Your task to perform on an android device: Go to calendar. Show me events next week Image 0: 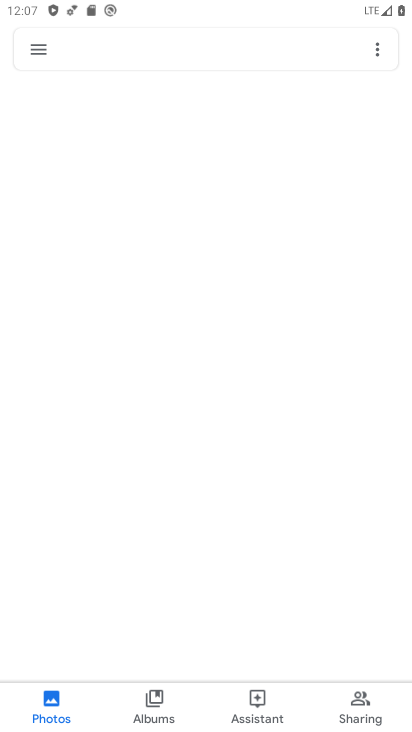
Step 0: click (411, 263)
Your task to perform on an android device: Go to calendar. Show me events next week Image 1: 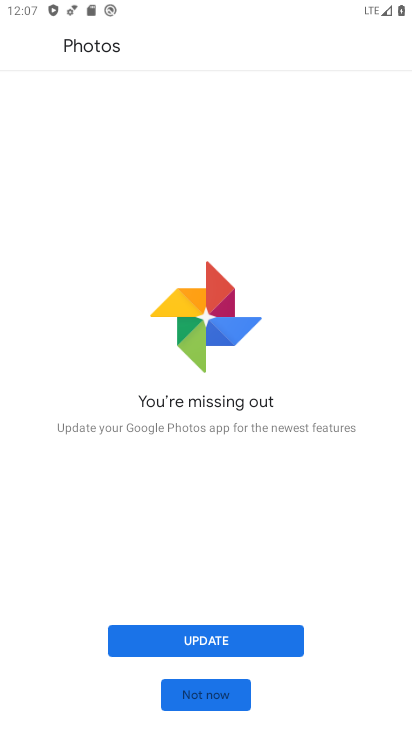
Step 1: press home button
Your task to perform on an android device: Go to calendar. Show me events next week Image 2: 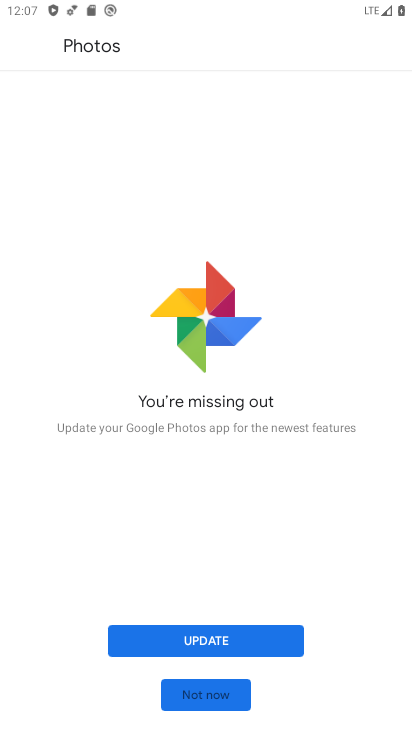
Step 2: drag from (411, 263) to (411, 602)
Your task to perform on an android device: Go to calendar. Show me events next week Image 3: 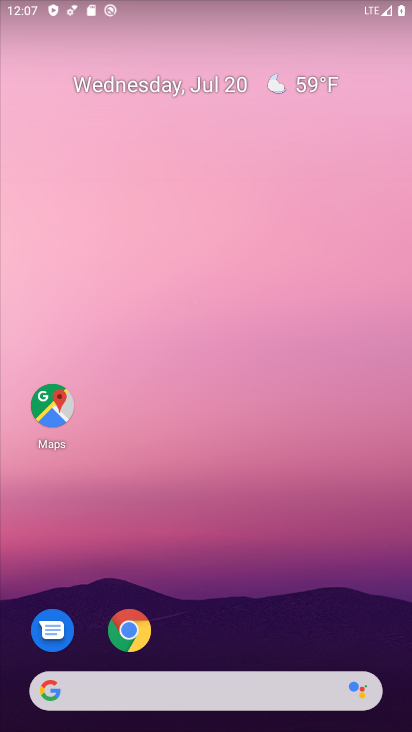
Step 3: drag from (299, 659) to (269, 161)
Your task to perform on an android device: Go to calendar. Show me events next week Image 4: 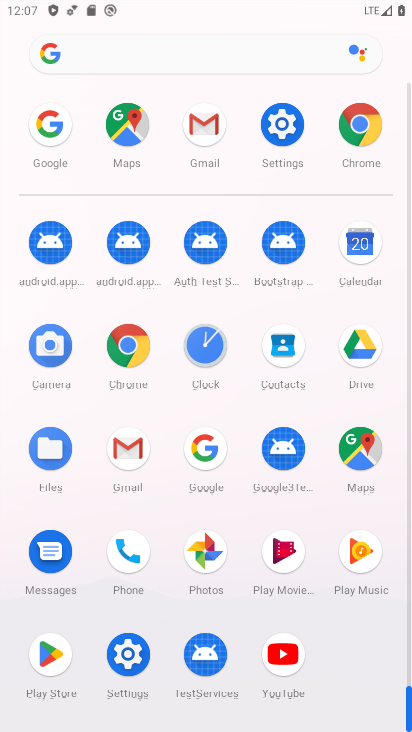
Step 4: click (364, 255)
Your task to perform on an android device: Go to calendar. Show me events next week Image 5: 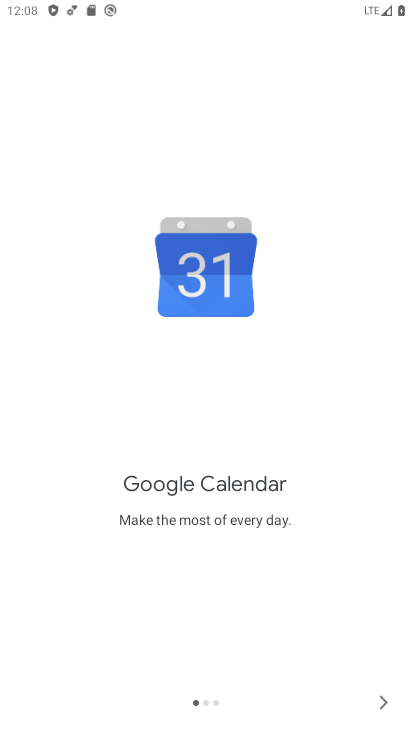
Step 5: click (388, 698)
Your task to perform on an android device: Go to calendar. Show me events next week Image 6: 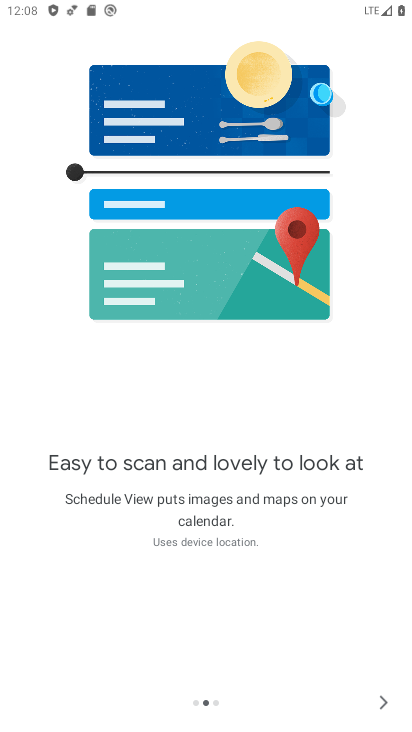
Step 6: click (383, 703)
Your task to perform on an android device: Go to calendar. Show me events next week Image 7: 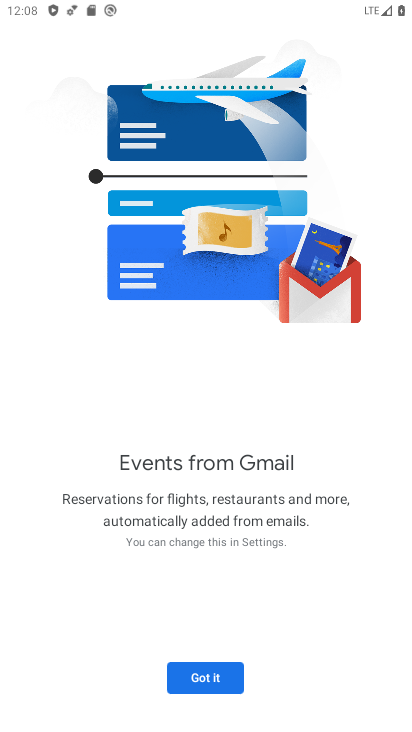
Step 7: click (209, 682)
Your task to perform on an android device: Go to calendar. Show me events next week Image 8: 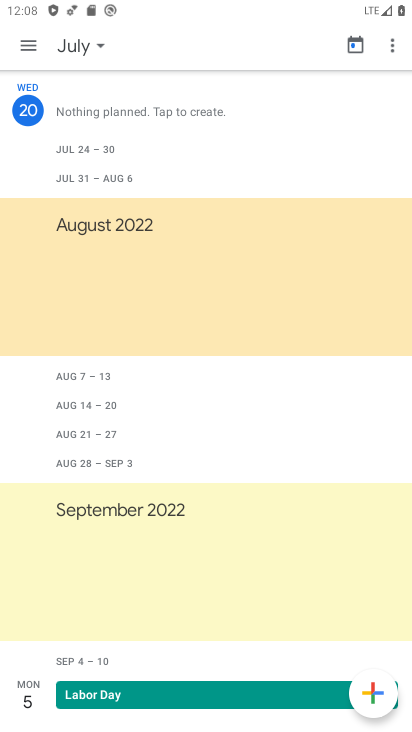
Step 8: click (85, 53)
Your task to perform on an android device: Go to calendar. Show me events next week Image 9: 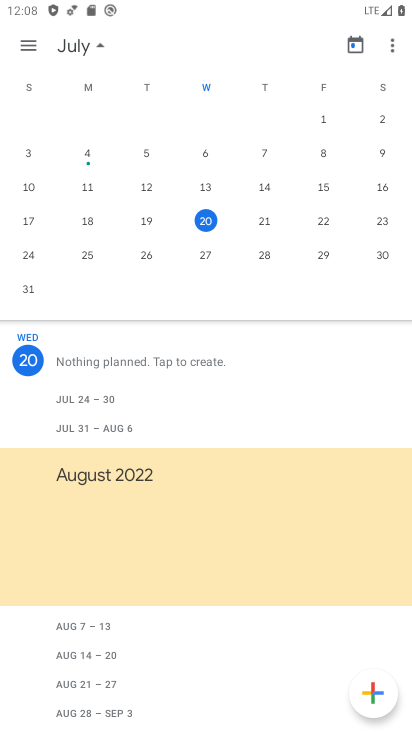
Step 9: click (33, 262)
Your task to perform on an android device: Go to calendar. Show me events next week Image 10: 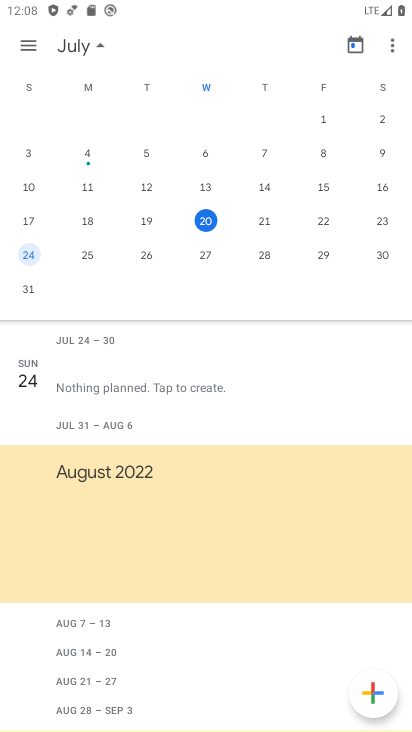
Step 10: task complete